Your task to perform on an android device: toggle notification dots Image 0: 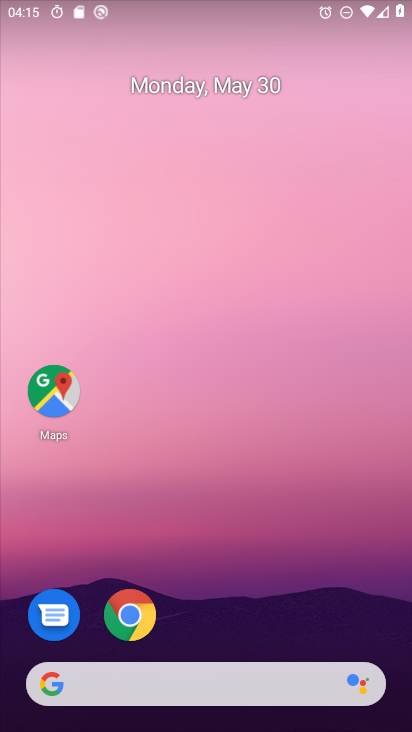
Step 0: drag from (268, 617) to (194, 134)
Your task to perform on an android device: toggle notification dots Image 1: 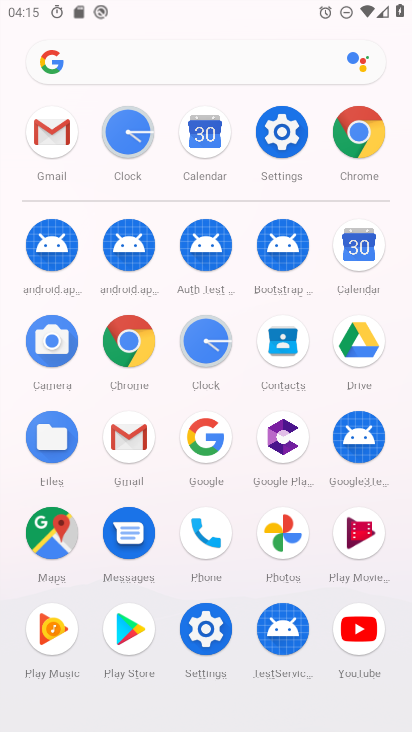
Step 1: click (280, 131)
Your task to perform on an android device: toggle notification dots Image 2: 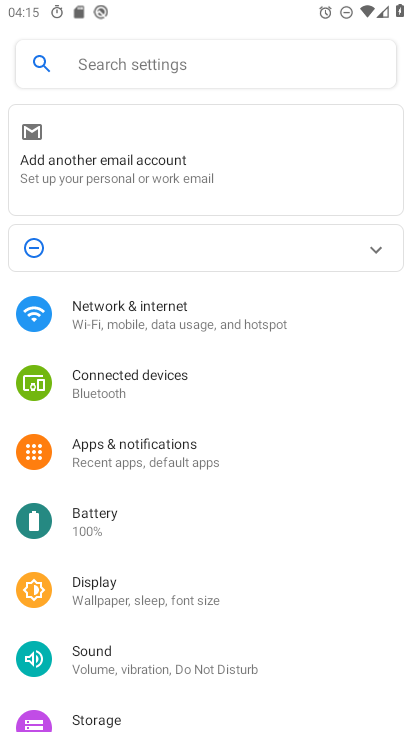
Step 2: click (141, 449)
Your task to perform on an android device: toggle notification dots Image 3: 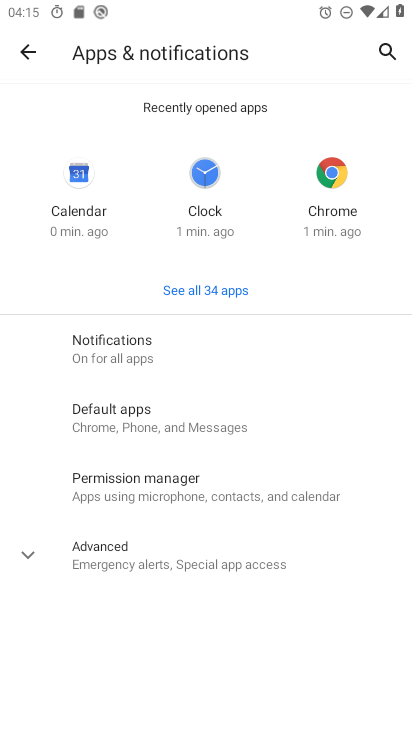
Step 3: click (124, 351)
Your task to perform on an android device: toggle notification dots Image 4: 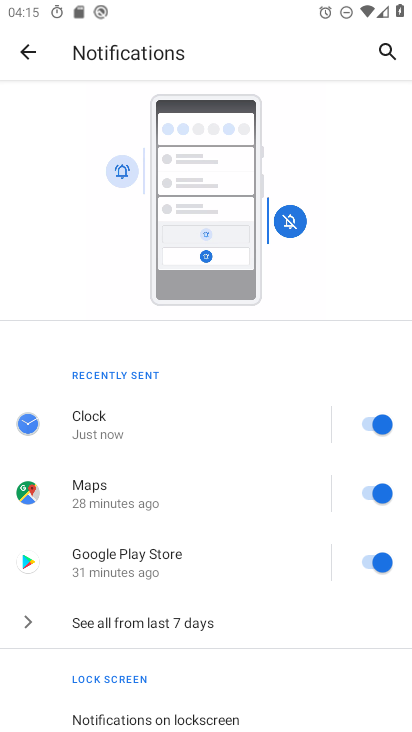
Step 4: drag from (152, 524) to (168, 409)
Your task to perform on an android device: toggle notification dots Image 5: 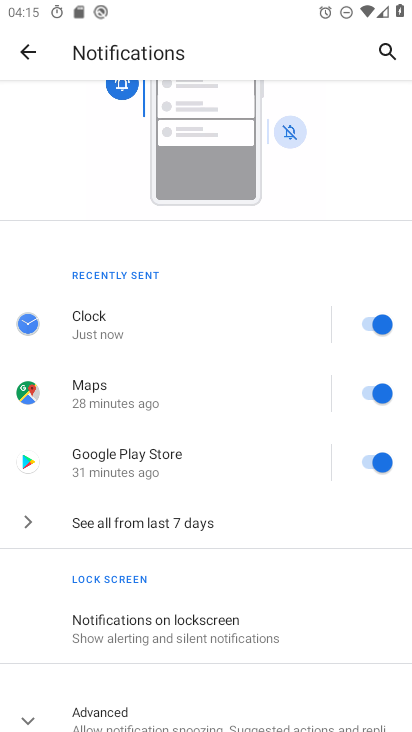
Step 5: drag from (127, 489) to (215, 384)
Your task to perform on an android device: toggle notification dots Image 6: 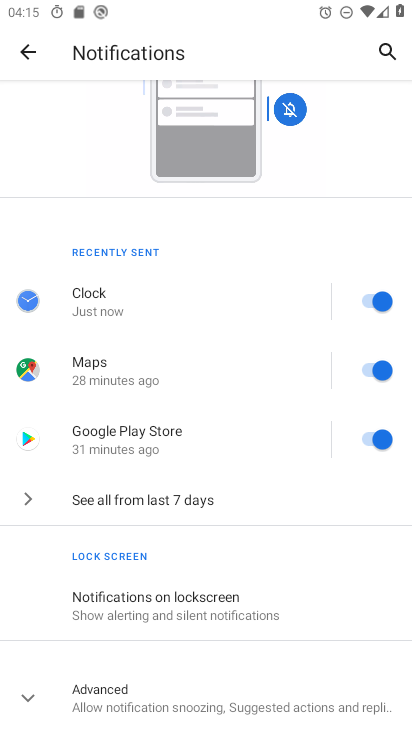
Step 6: click (140, 709)
Your task to perform on an android device: toggle notification dots Image 7: 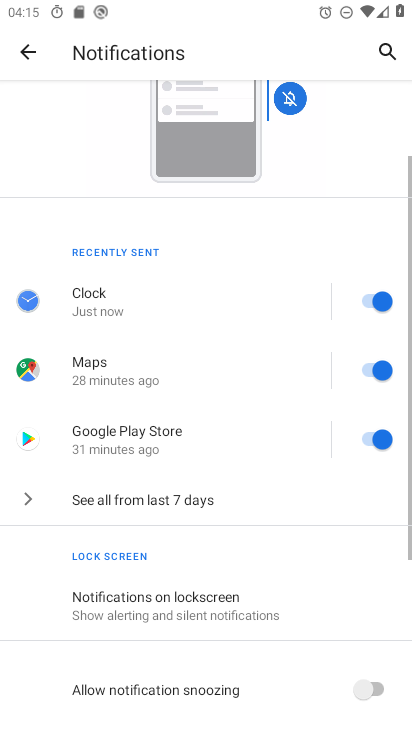
Step 7: drag from (163, 669) to (200, 542)
Your task to perform on an android device: toggle notification dots Image 8: 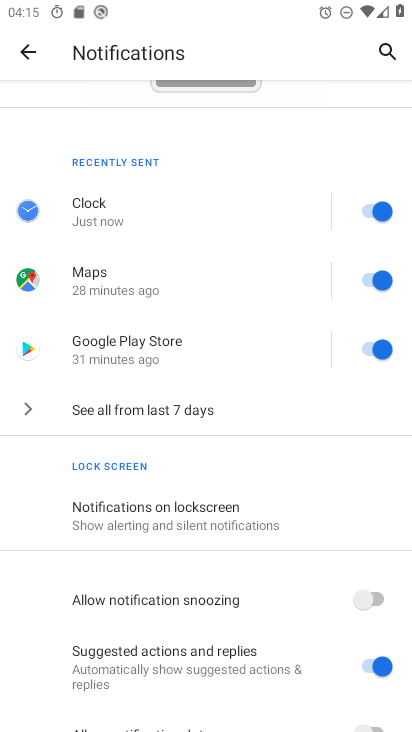
Step 8: drag from (165, 623) to (245, 523)
Your task to perform on an android device: toggle notification dots Image 9: 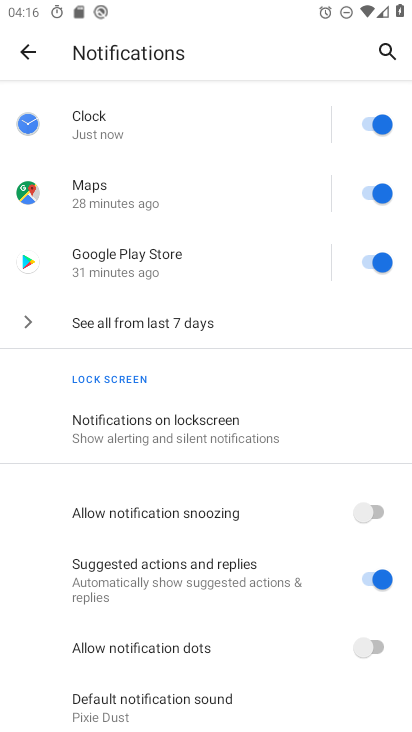
Step 9: drag from (194, 630) to (229, 530)
Your task to perform on an android device: toggle notification dots Image 10: 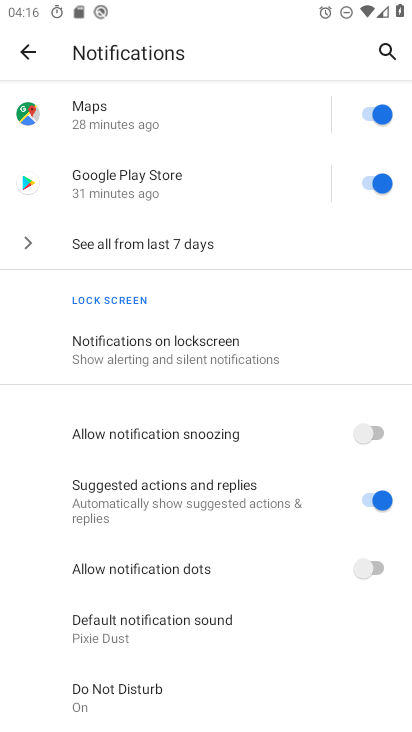
Step 10: click (373, 579)
Your task to perform on an android device: toggle notification dots Image 11: 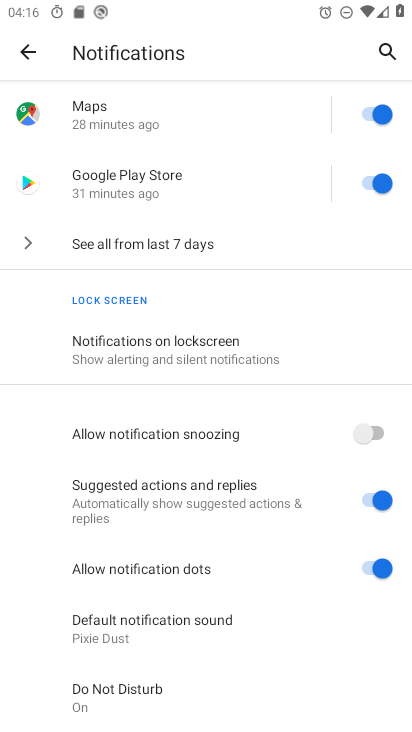
Step 11: task complete